Your task to perform on an android device: Set the phone to "Do not disturb". Image 0: 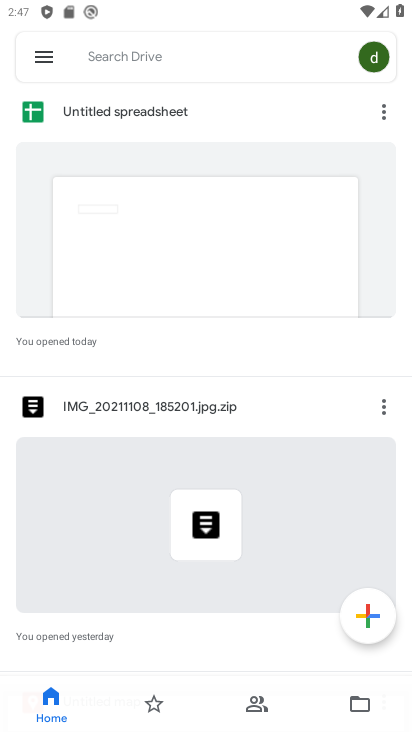
Step 0: press home button
Your task to perform on an android device: Set the phone to "Do not disturb". Image 1: 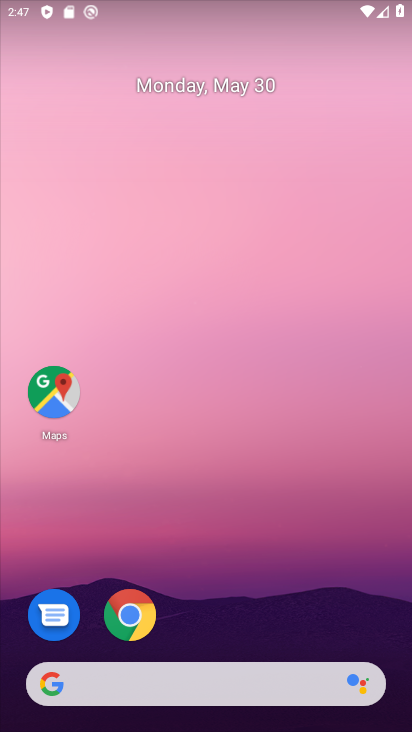
Step 1: drag from (208, 534) to (290, 63)
Your task to perform on an android device: Set the phone to "Do not disturb". Image 2: 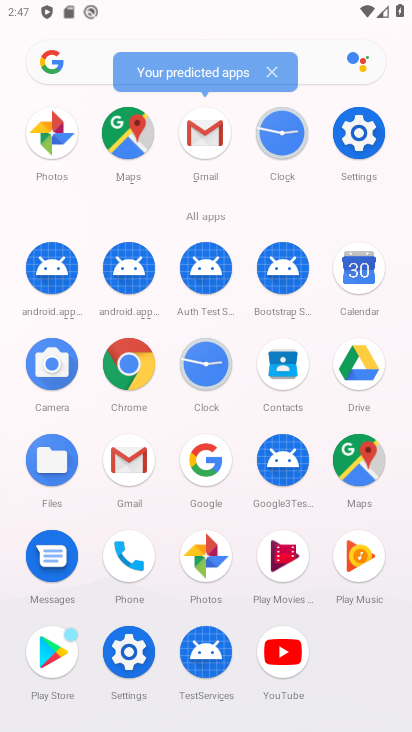
Step 2: drag from (136, 673) to (190, 437)
Your task to perform on an android device: Set the phone to "Do not disturb". Image 3: 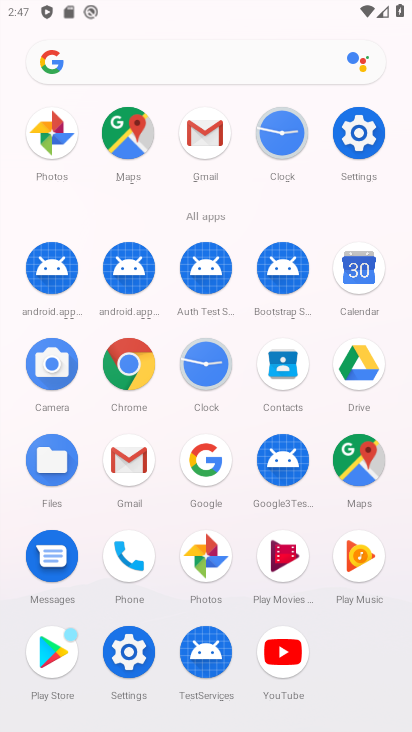
Step 3: click (128, 660)
Your task to perform on an android device: Set the phone to "Do not disturb". Image 4: 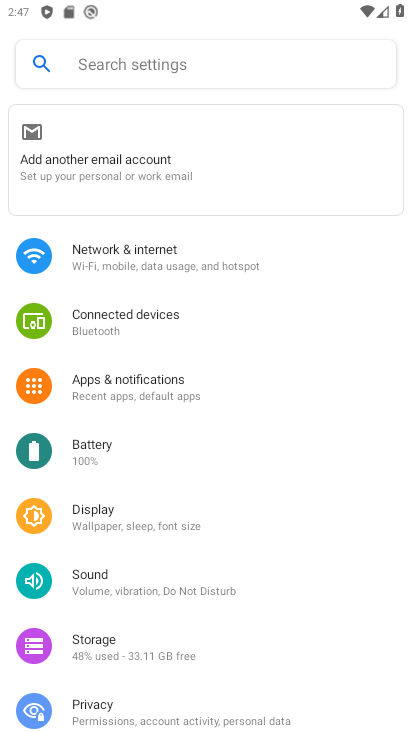
Step 4: drag from (169, 586) to (224, 295)
Your task to perform on an android device: Set the phone to "Do not disturb". Image 5: 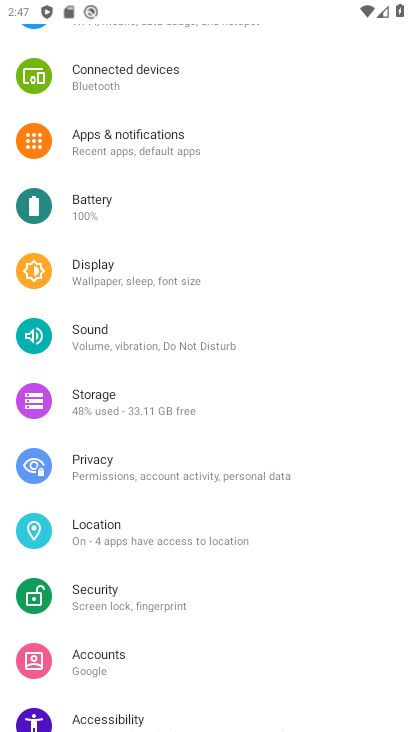
Step 5: click (220, 159)
Your task to perform on an android device: Set the phone to "Do not disturb". Image 6: 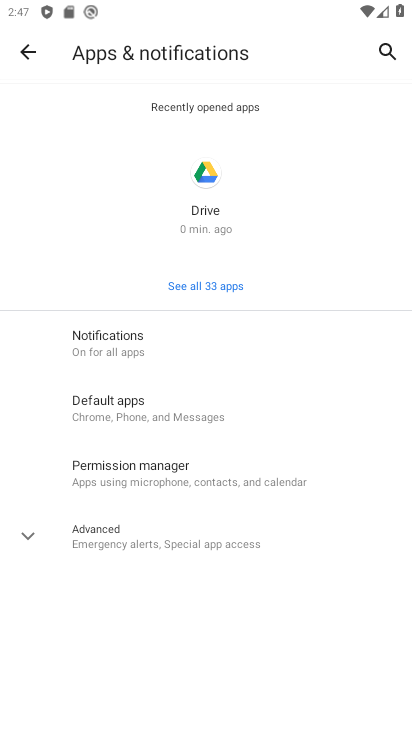
Step 6: click (252, 344)
Your task to perform on an android device: Set the phone to "Do not disturb". Image 7: 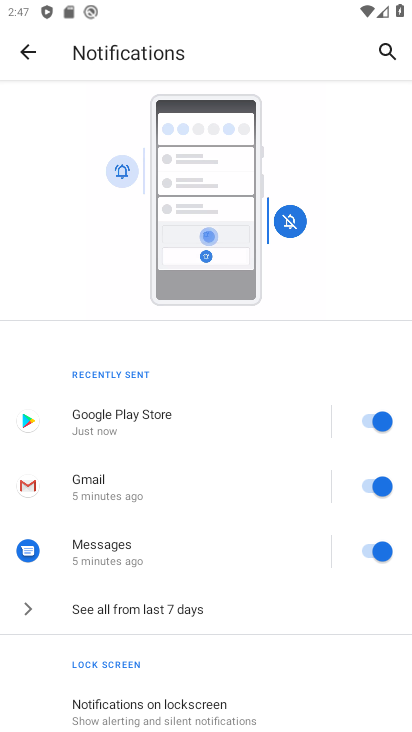
Step 7: drag from (189, 725) to (284, 291)
Your task to perform on an android device: Set the phone to "Do not disturb". Image 8: 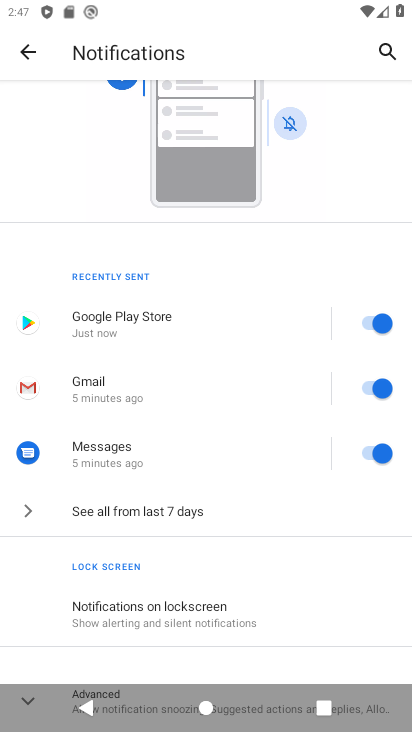
Step 8: click (150, 664)
Your task to perform on an android device: Set the phone to "Do not disturb". Image 9: 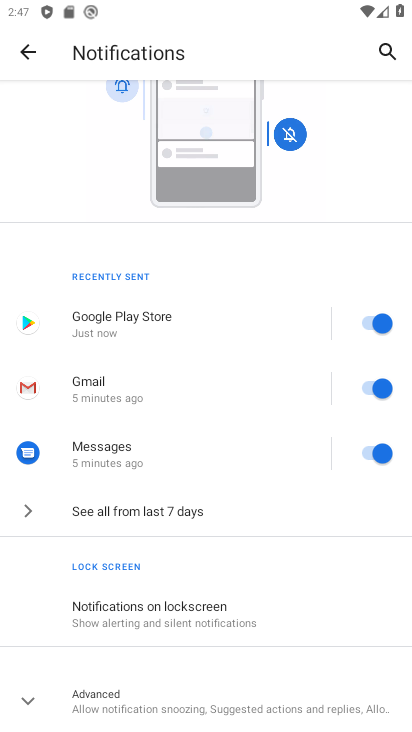
Step 9: click (152, 695)
Your task to perform on an android device: Set the phone to "Do not disturb". Image 10: 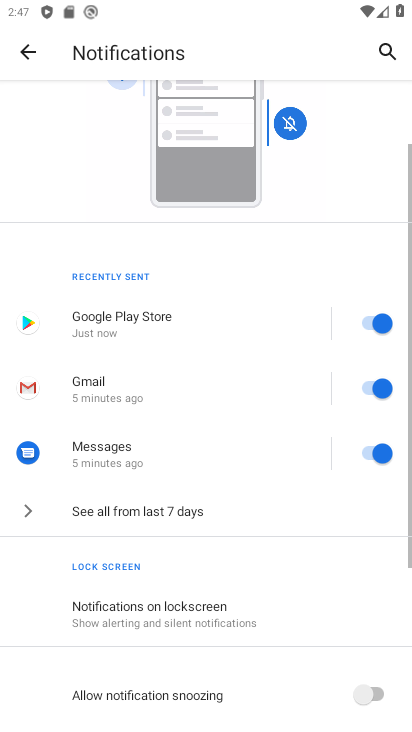
Step 10: drag from (152, 695) to (259, 159)
Your task to perform on an android device: Set the phone to "Do not disturb". Image 11: 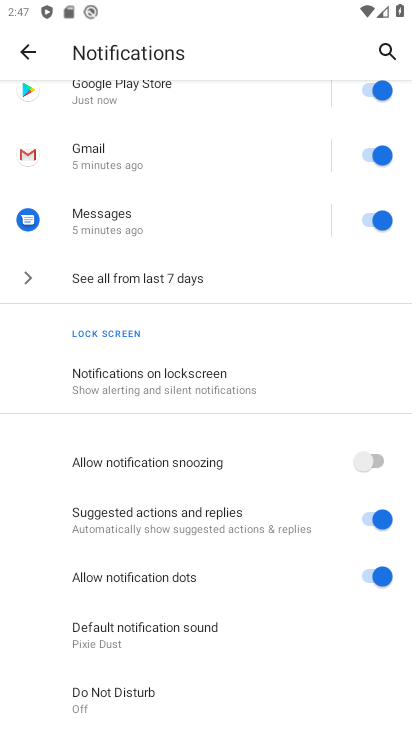
Step 11: click (251, 682)
Your task to perform on an android device: Set the phone to "Do not disturb". Image 12: 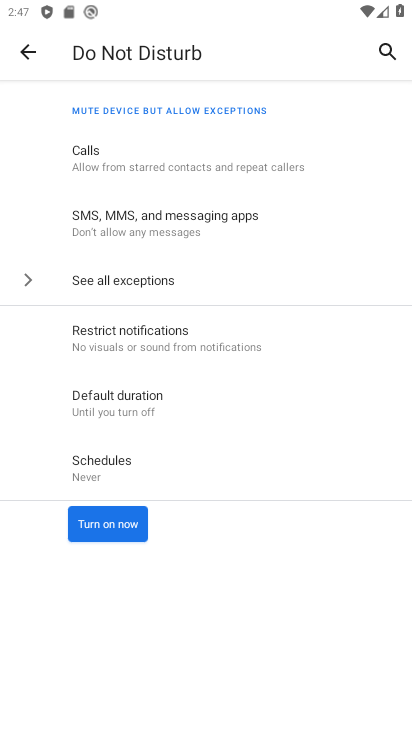
Step 12: click (100, 506)
Your task to perform on an android device: Set the phone to "Do not disturb". Image 13: 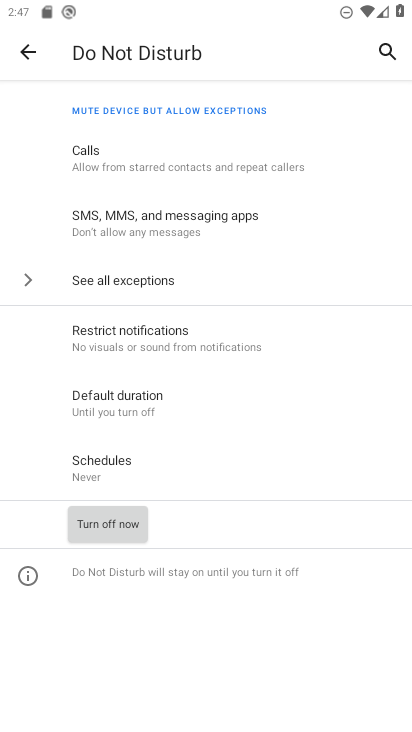
Step 13: task complete